Your task to perform on an android device: delete a single message in the gmail app Image 0: 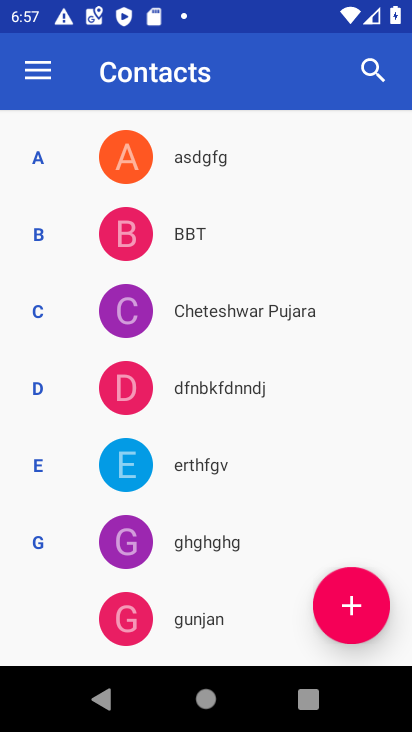
Step 0: press home button
Your task to perform on an android device: delete a single message in the gmail app Image 1: 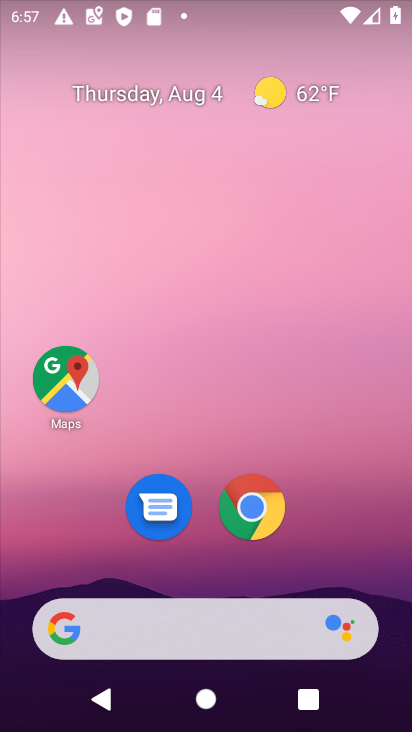
Step 1: drag from (398, 630) to (195, 57)
Your task to perform on an android device: delete a single message in the gmail app Image 2: 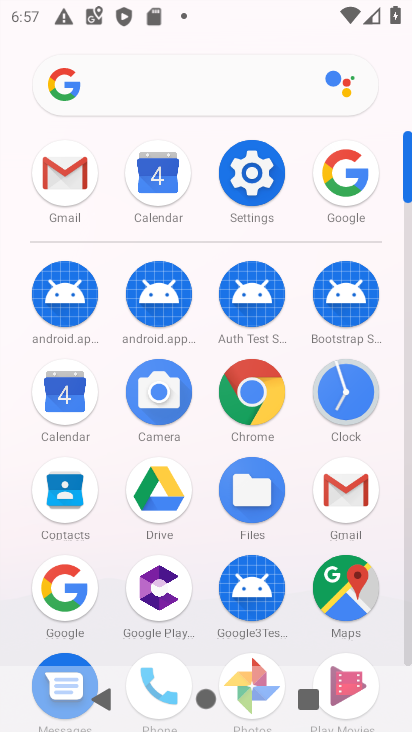
Step 2: click (354, 510)
Your task to perform on an android device: delete a single message in the gmail app Image 3: 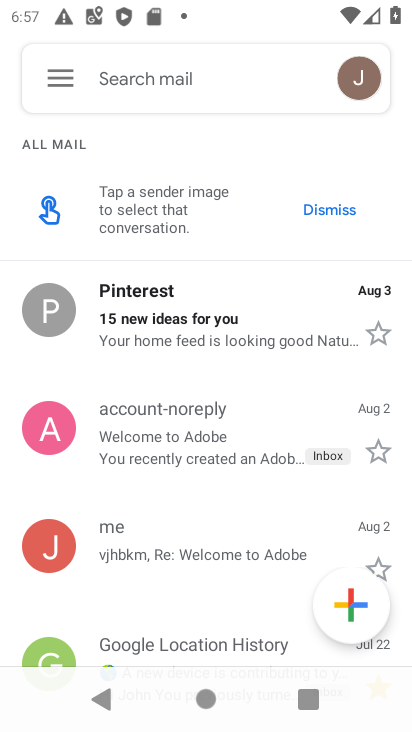
Step 3: click (152, 286)
Your task to perform on an android device: delete a single message in the gmail app Image 4: 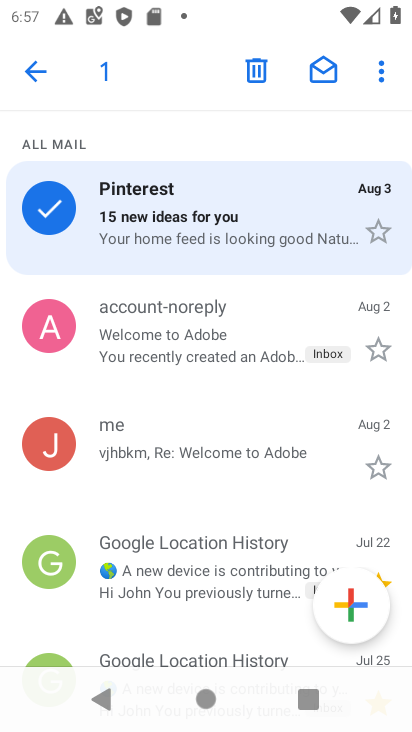
Step 4: click (254, 63)
Your task to perform on an android device: delete a single message in the gmail app Image 5: 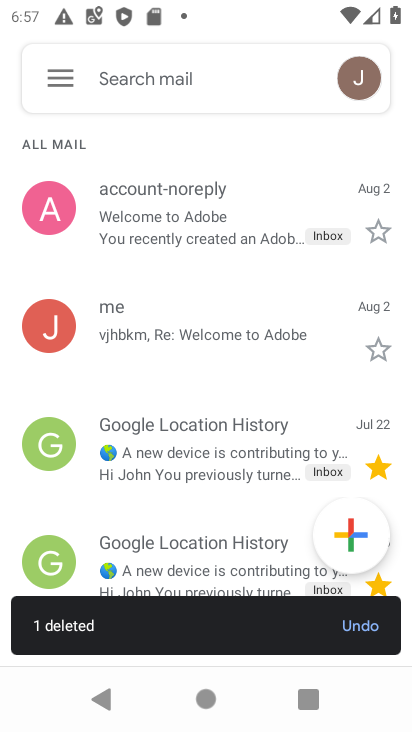
Step 5: task complete